Your task to perform on an android device: turn off improve location accuracy Image 0: 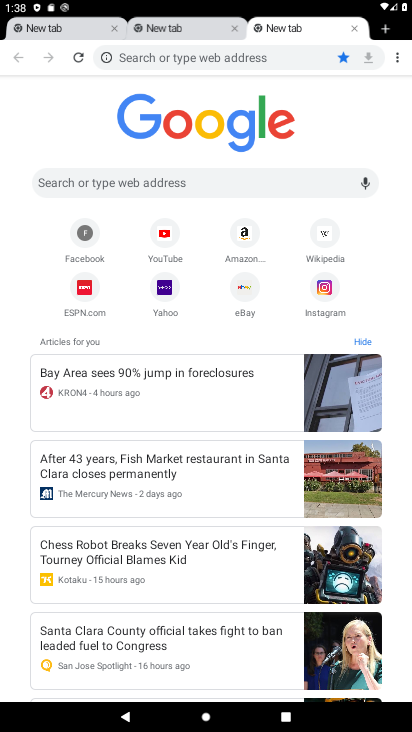
Step 0: press home button
Your task to perform on an android device: turn off improve location accuracy Image 1: 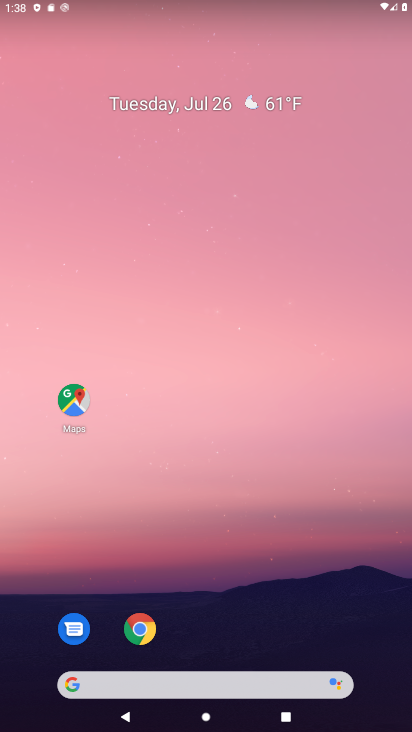
Step 1: drag from (209, 627) to (315, 39)
Your task to perform on an android device: turn off improve location accuracy Image 2: 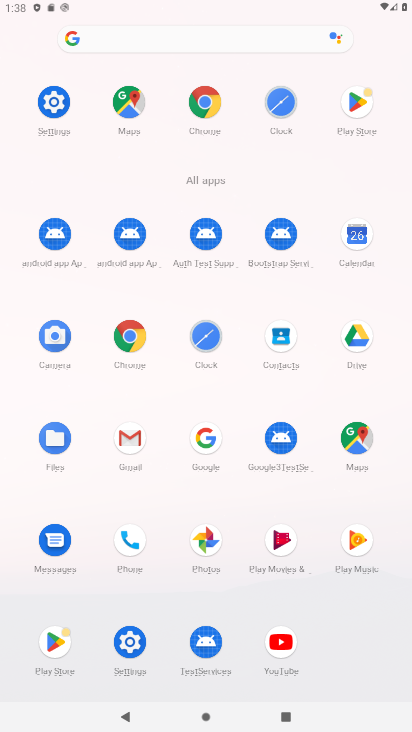
Step 2: click (47, 123)
Your task to perform on an android device: turn off improve location accuracy Image 3: 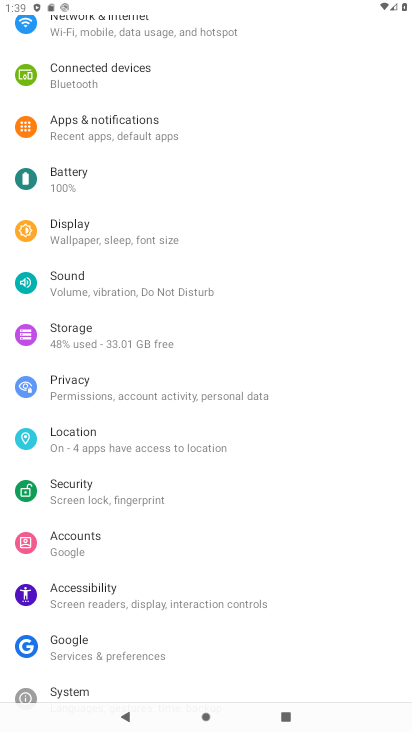
Step 3: click (82, 441)
Your task to perform on an android device: turn off improve location accuracy Image 4: 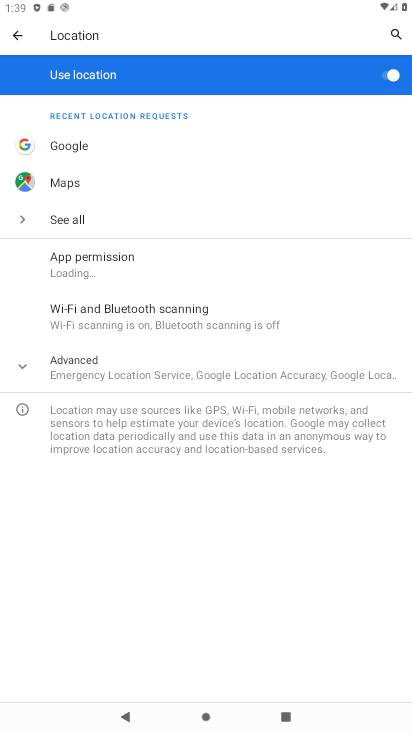
Step 4: click (133, 377)
Your task to perform on an android device: turn off improve location accuracy Image 5: 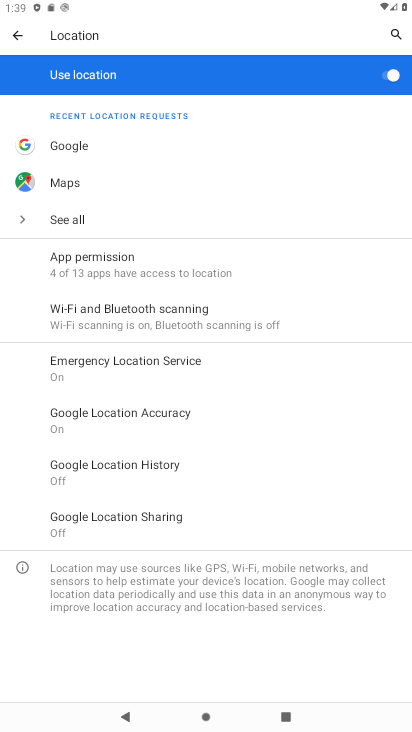
Step 5: click (126, 411)
Your task to perform on an android device: turn off improve location accuracy Image 6: 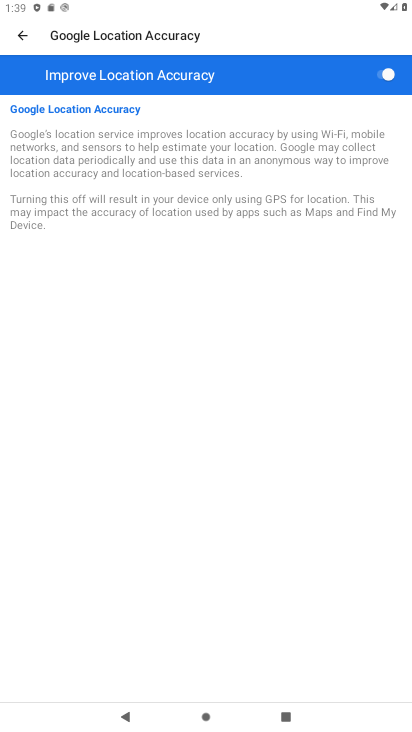
Step 6: click (381, 75)
Your task to perform on an android device: turn off improve location accuracy Image 7: 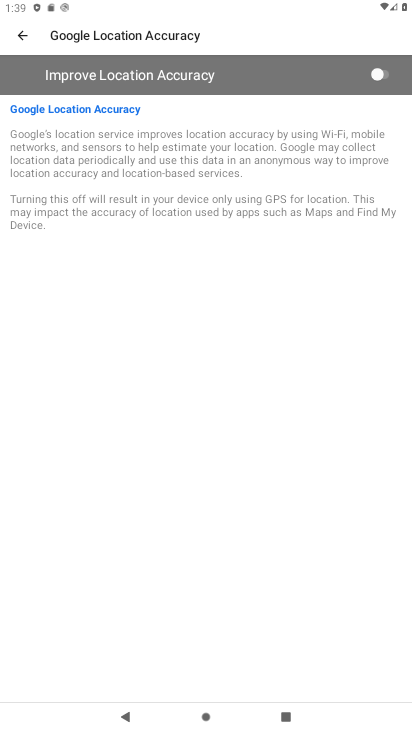
Step 7: task complete